Your task to perform on an android device: Turn on the flashlight Image 0: 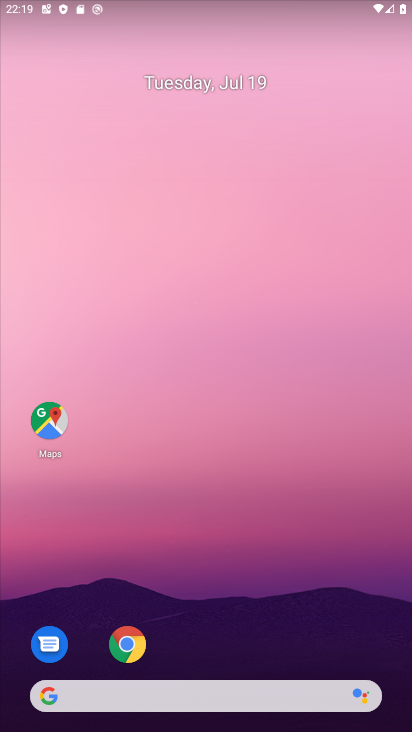
Step 0: drag from (246, 725) to (239, 391)
Your task to perform on an android device: Turn on the flashlight Image 1: 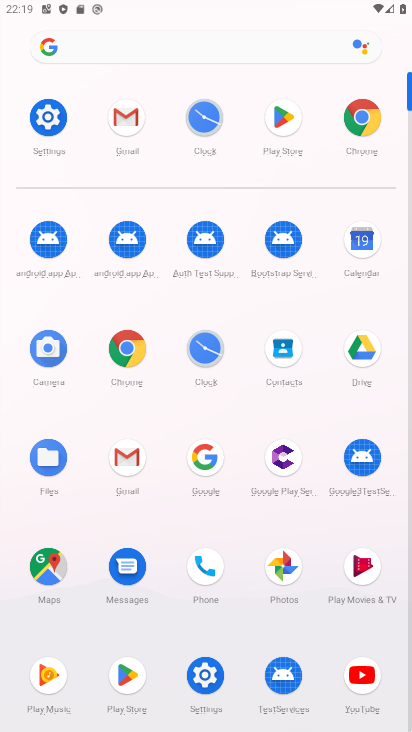
Step 1: click (40, 113)
Your task to perform on an android device: Turn on the flashlight Image 2: 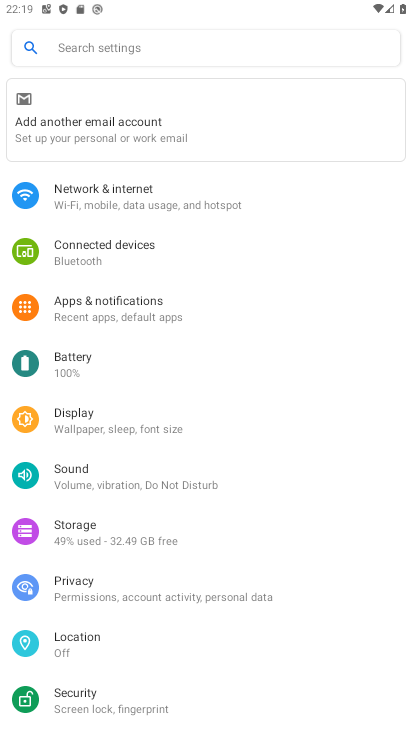
Step 2: task complete